Your task to perform on an android device: Open the web browser Image 0: 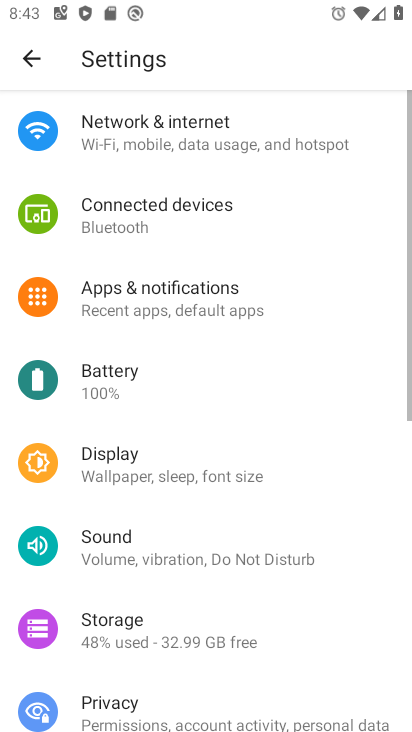
Step 0: press home button
Your task to perform on an android device: Open the web browser Image 1: 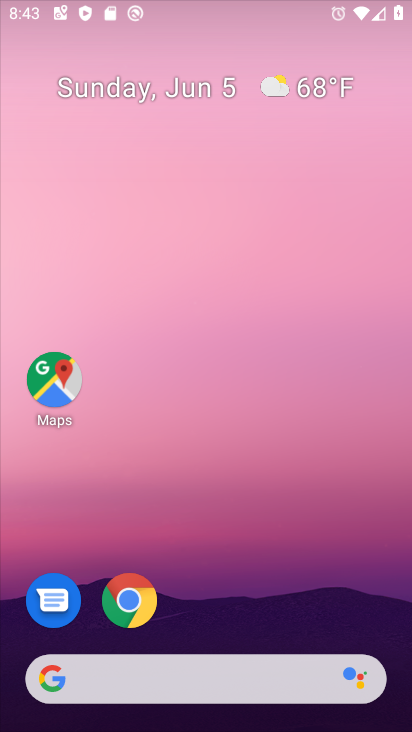
Step 1: drag from (398, 671) to (301, 92)
Your task to perform on an android device: Open the web browser Image 2: 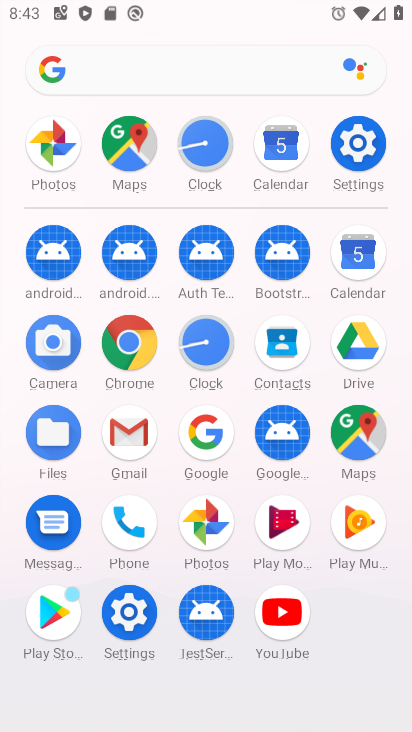
Step 2: click (191, 433)
Your task to perform on an android device: Open the web browser Image 3: 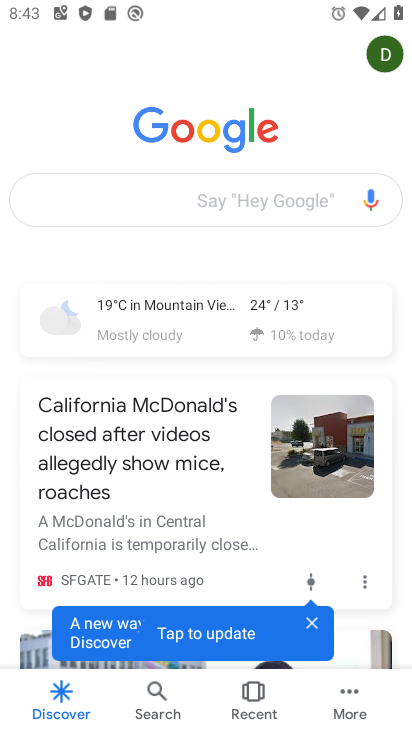
Step 3: click (177, 199)
Your task to perform on an android device: Open the web browser Image 4: 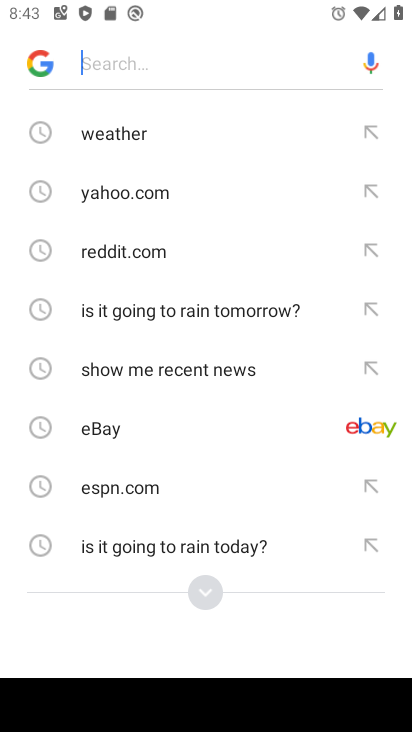
Step 4: type "web browser"
Your task to perform on an android device: Open the web browser Image 5: 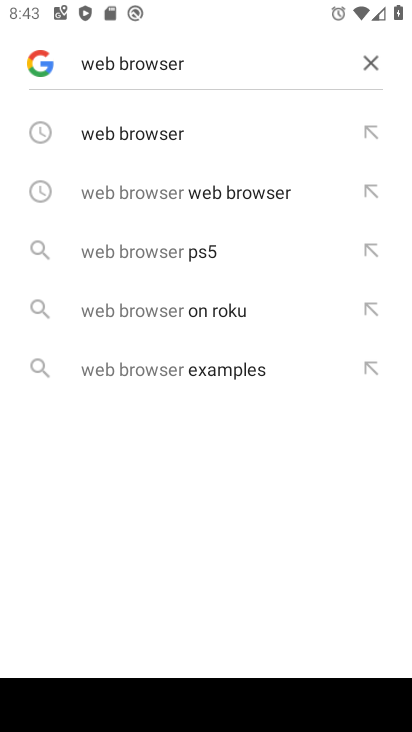
Step 5: click (173, 139)
Your task to perform on an android device: Open the web browser Image 6: 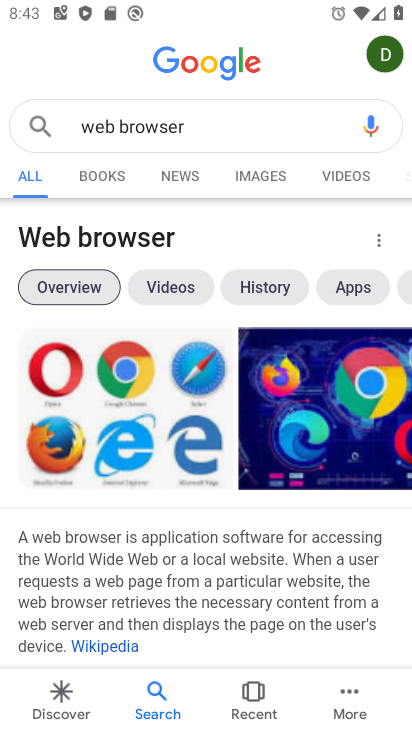
Step 6: task complete